Your task to perform on an android device: Go to location settings Image 0: 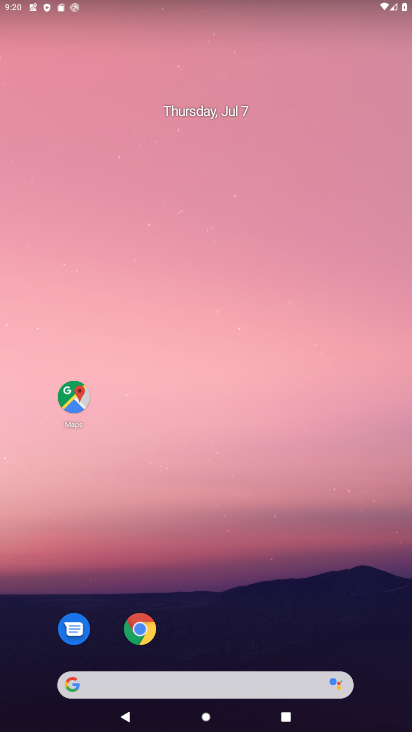
Step 0: drag from (265, 560) to (181, 24)
Your task to perform on an android device: Go to location settings Image 1: 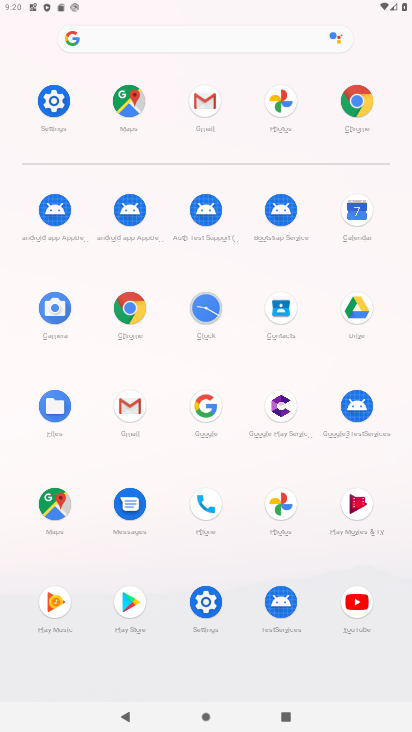
Step 1: click (52, 107)
Your task to perform on an android device: Go to location settings Image 2: 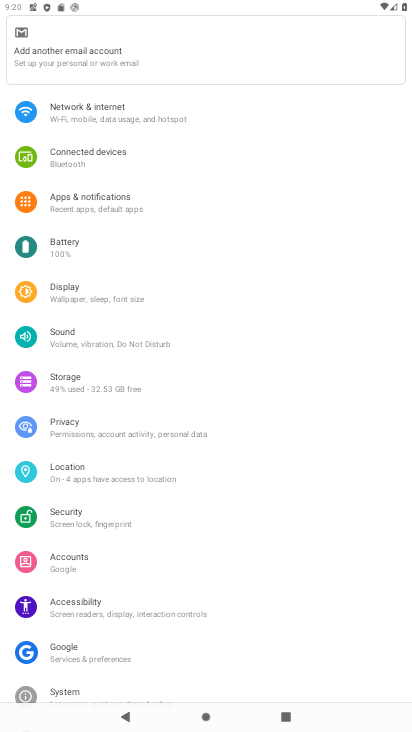
Step 2: click (65, 467)
Your task to perform on an android device: Go to location settings Image 3: 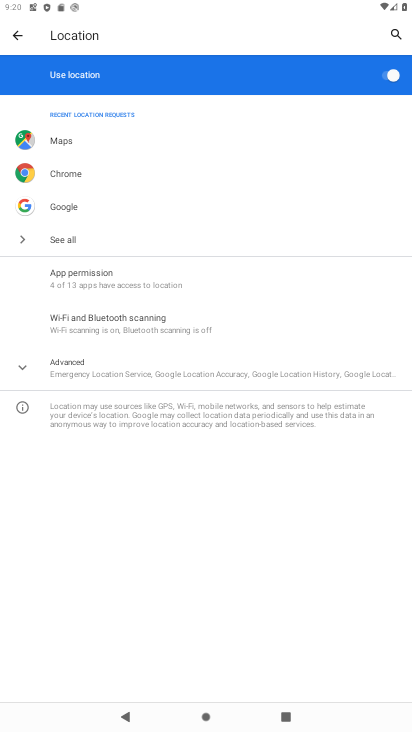
Step 3: task complete